Your task to perform on an android device: Clear all items from cart on walmart.com. Search for "jbl flip 4" on walmart.com, select the first entry, and add it to the cart. Image 0: 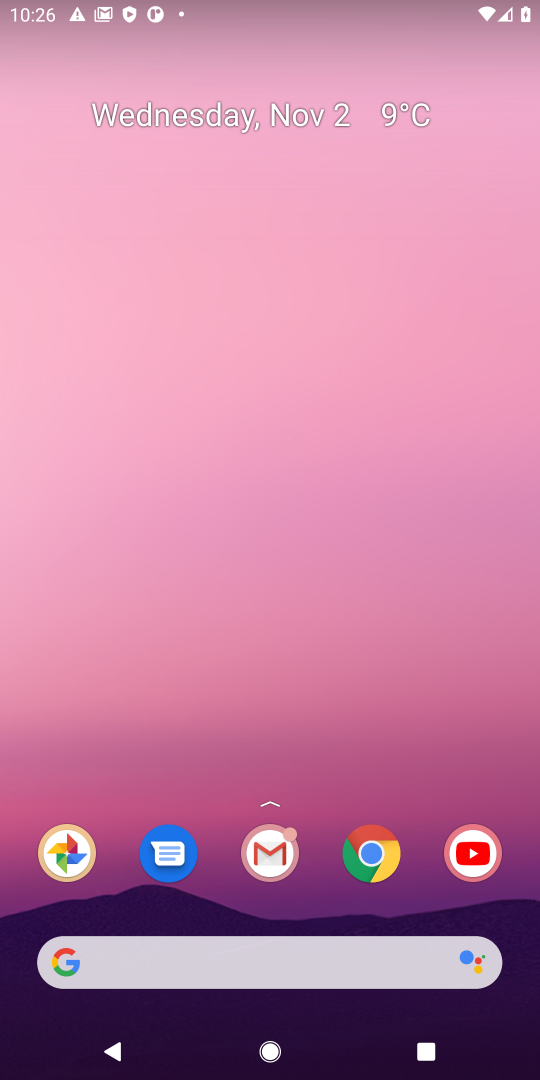
Step 0: press home button
Your task to perform on an android device: Clear all items from cart on walmart.com. Search for "jbl flip 4" on walmart.com, select the first entry, and add it to the cart. Image 1: 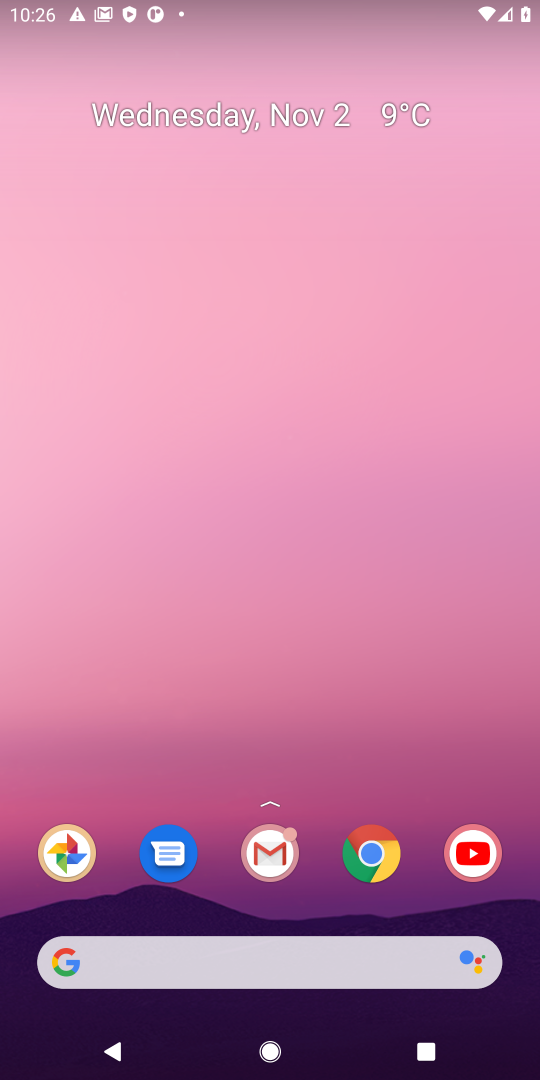
Step 1: click (377, 851)
Your task to perform on an android device: Clear all items from cart on walmart.com. Search for "jbl flip 4" on walmart.com, select the first entry, and add it to the cart. Image 2: 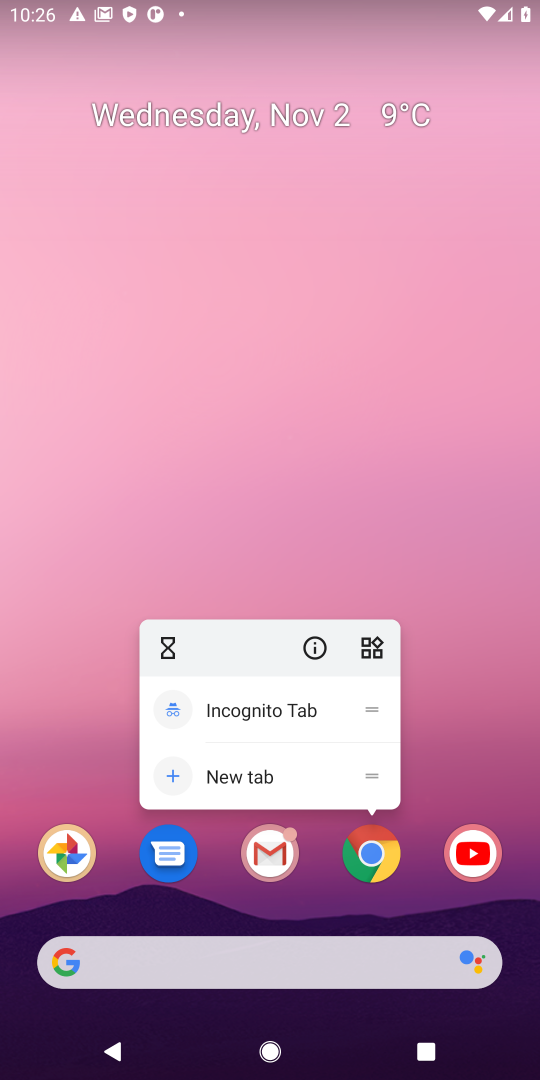
Step 2: click (378, 851)
Your task to perform on an android device: Clear all items from cart on walmart.com. Search for "jbl flip 4" on walmart.com, select the first entry, and add it to the cart. Image 3: 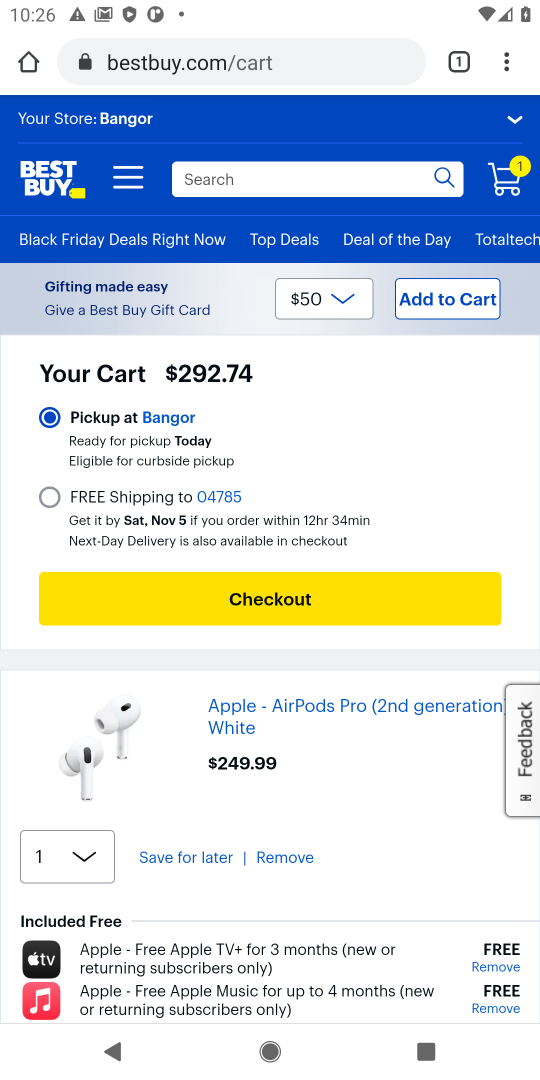
Step 3: click (326, 64)
Your task to perform on an android device: Clear all items from cart on walmart.com. Search for "jbl flip 4" on walmart.com, select the first entry, and add it to the cart. Image 4: 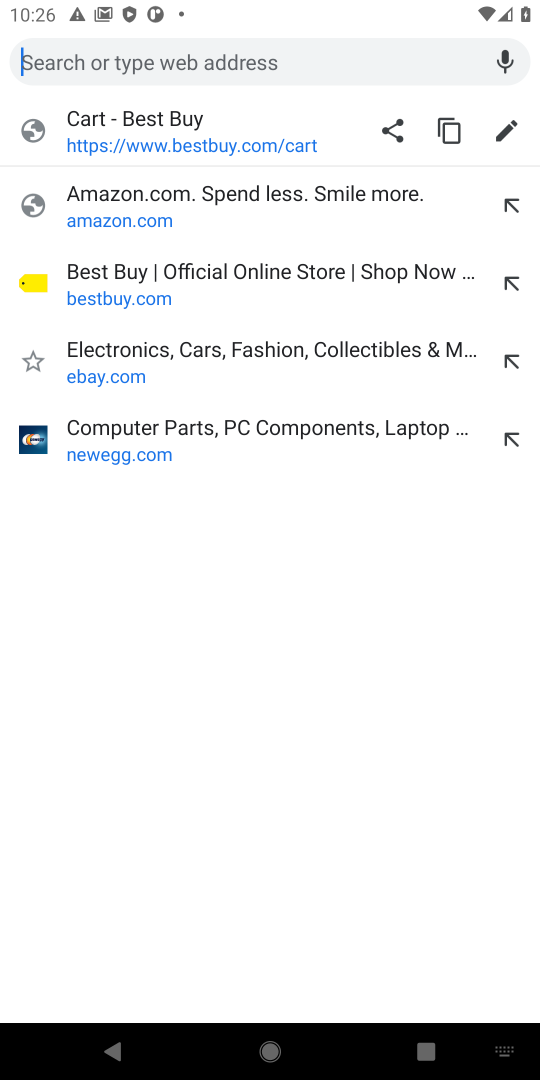
Step 4: type "walmart.com"
Your task to perform on an android device: Clear all items from cart on walmart.com. Search for "jbl flip 4" on walmart.com, select the first entry, and add it to the cart. Image 5: 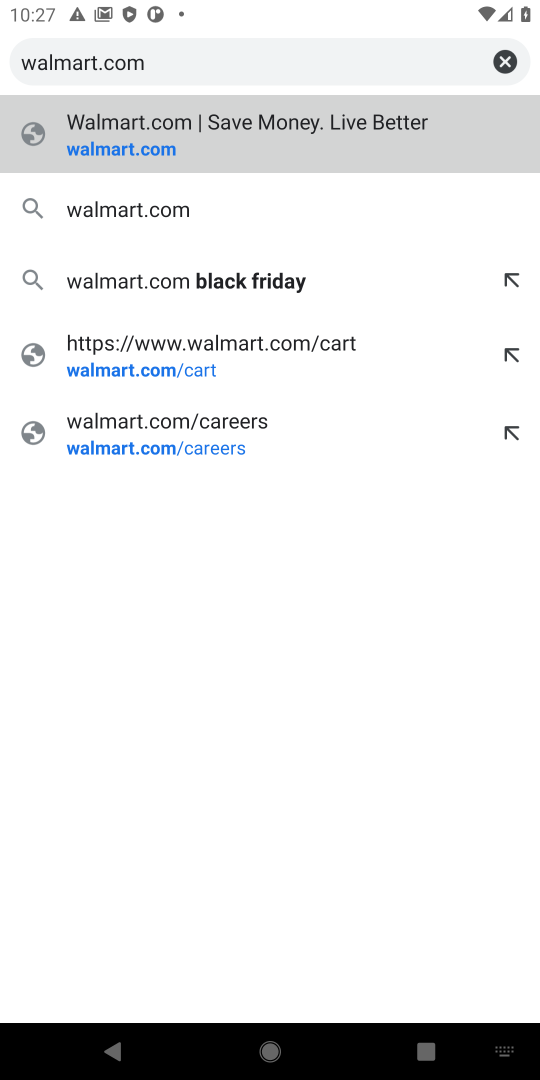
Step 5: press enter
Your task to perform on an android device: Clear all items from cart on walmart.com. Search for "jbl flip 4" on walmart.com, select the first entry, and add it to the cart. Image 6: 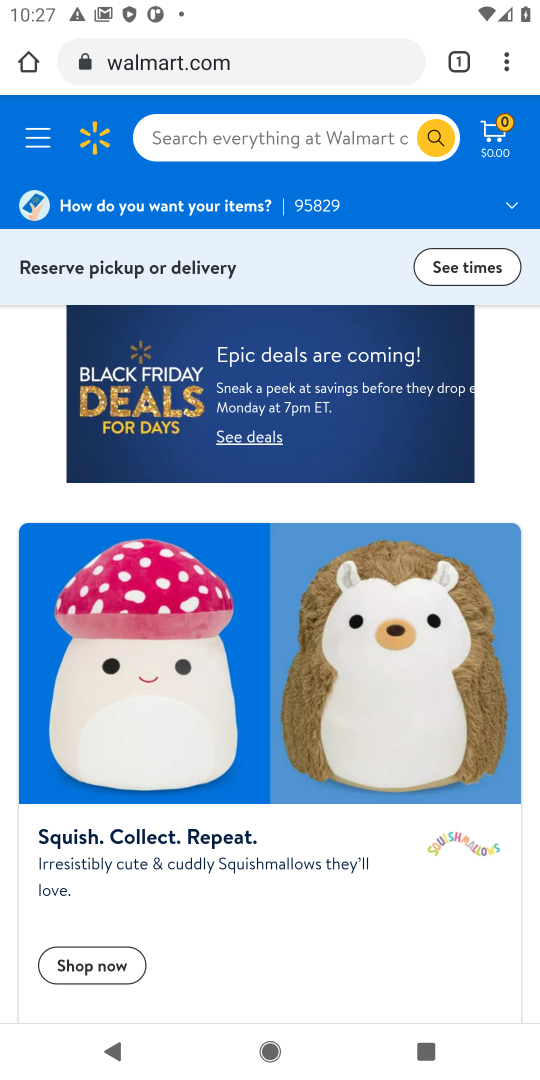
Step 6: click (281, 145)
Your task to perform on an android device: Clear all items from cart on walmart.com. Search for "jbl flip 4" on walmart.com, select the first entry, and add it to the cart. Image 7: 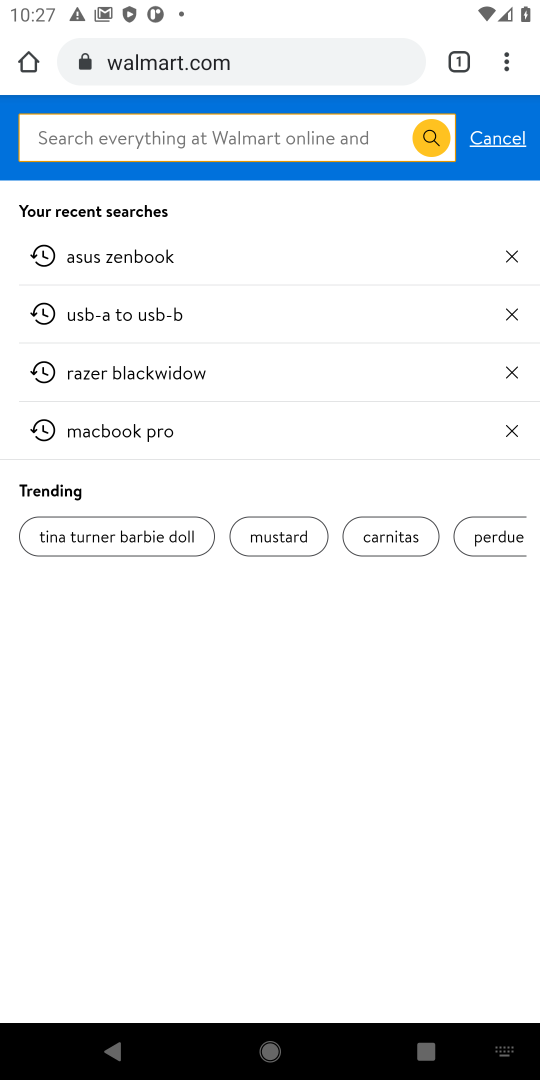
Step 7: type "jbl flip 4"
Your task to perform on an android device: Clear all items from cart on walmart.com. Search for "jbl flip 4" on walmart.com, select the first entry, and add it to the cart. Image 8: 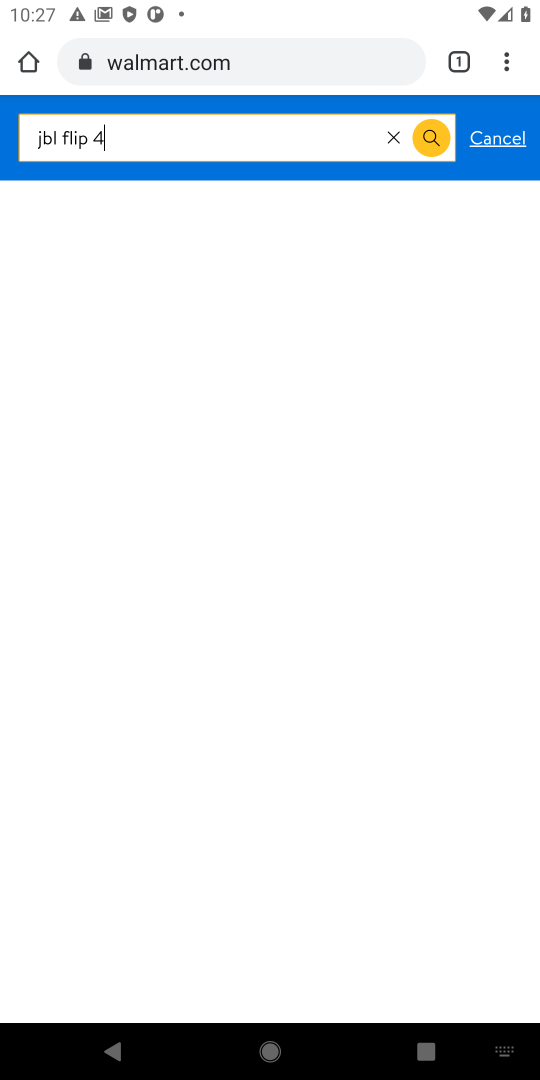
Step 8: press enter
Your task to perform on an android device: Clear all items from cart on walmart.com. Search for "jbl flip 4" on walmart.com, select the first entry, and add it to the cart. Image 9: 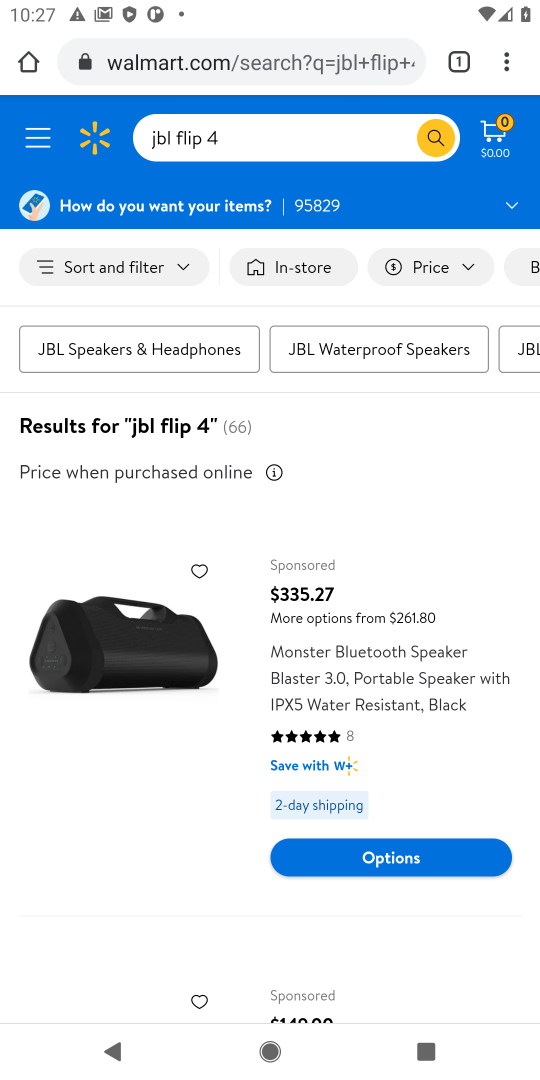
Step 9: click (313, 641)
Your task to perform on an android device: Clear all items from cart on walmart.com. Search for "jbl flip 4" on walmart.com, select the first entry, and add it to the cart. Image 10: 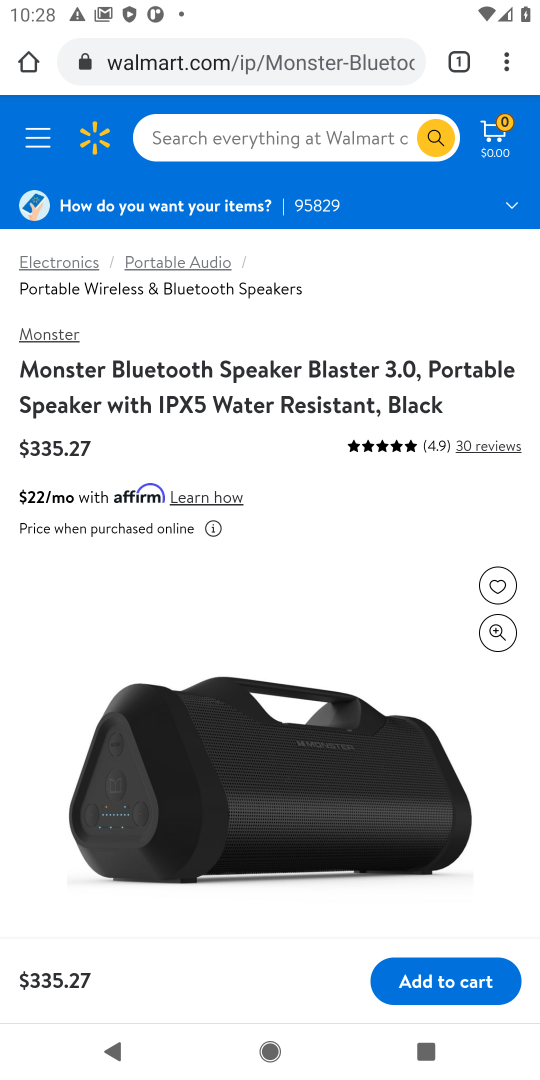
Step 10: task complete